Your task to perform on an android device: turn on translation in the chrome app Image 0: 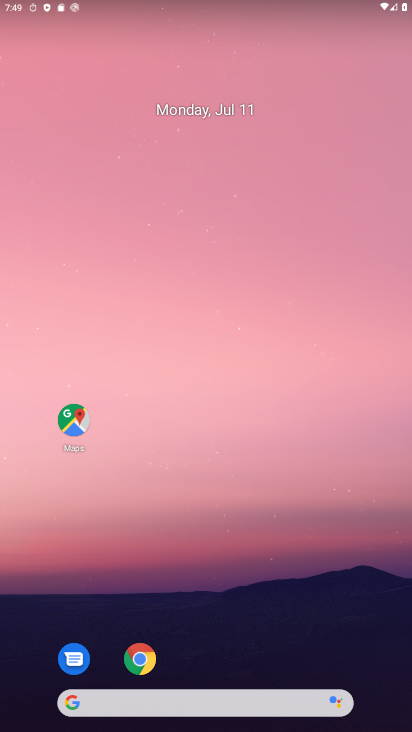
Step 0: click (402, 584)
Your task to perform on an android device: turn on translation in the chrome app Image 1: 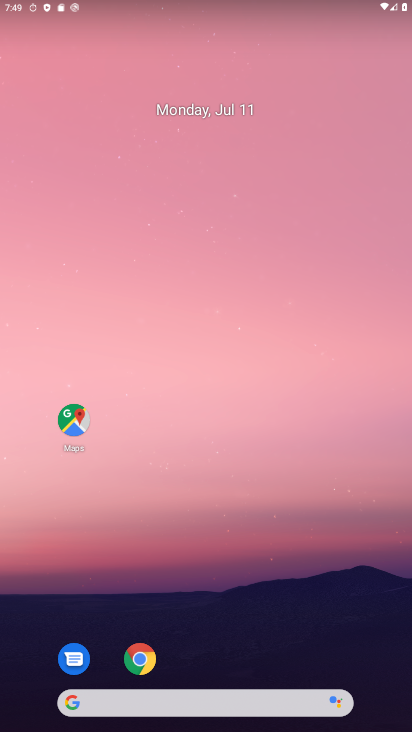
Step 1: drag from (362, 618) to (402, 80)
Your task to perform on an android device: turn on translation in the chrome app Image 2: 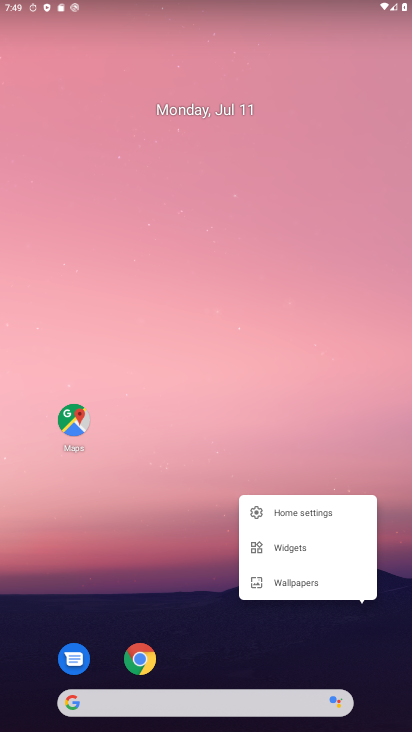
Step 2: click (230, 624)
Your task to perform on an android device: turn on translation in the chrome app Image 3: 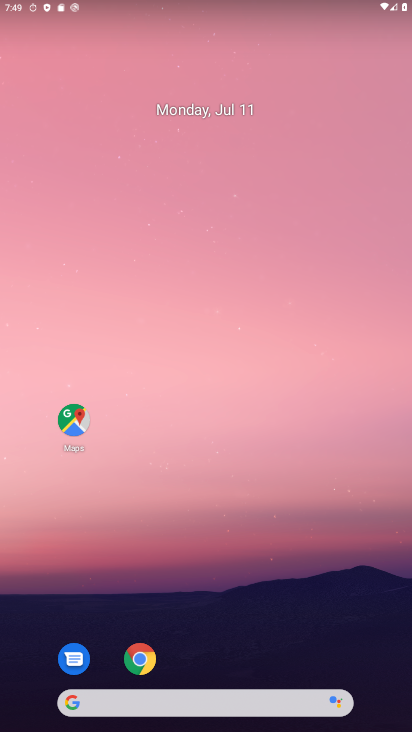
Step 3: drag from (251, 655) to (138, 15)
Your task to perform on an android device: turn on translation in the chrome app Image 4: 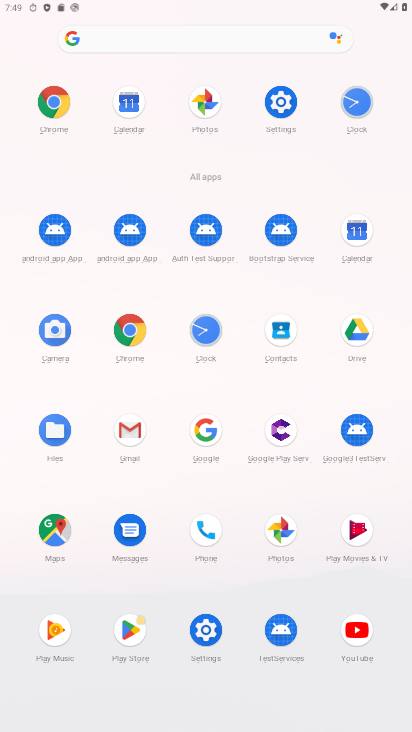
Step 4: drag from (298, 663) to (277, 40)
Your task to perform on an android device: turn on translation in the chrome app Image 5: 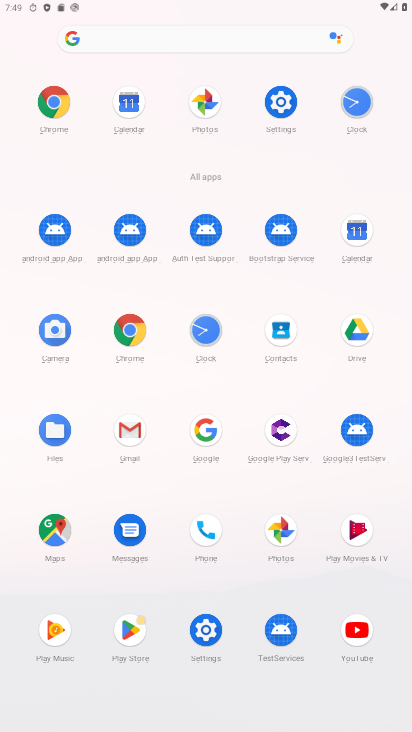
Step 5: click (57, 100)
Your task to perform on an android device: turn on translation in the chrome app Image 6: 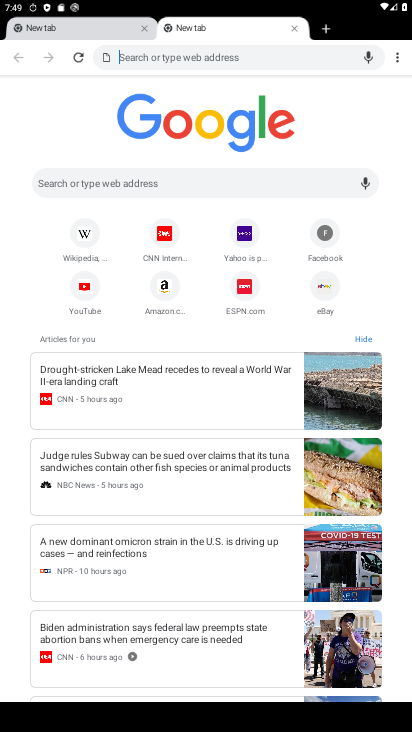
Step 6: drag from (404, 60) to (305, 268)
Your task to perform on an android device: turn on translation in the chrome app Image 7: 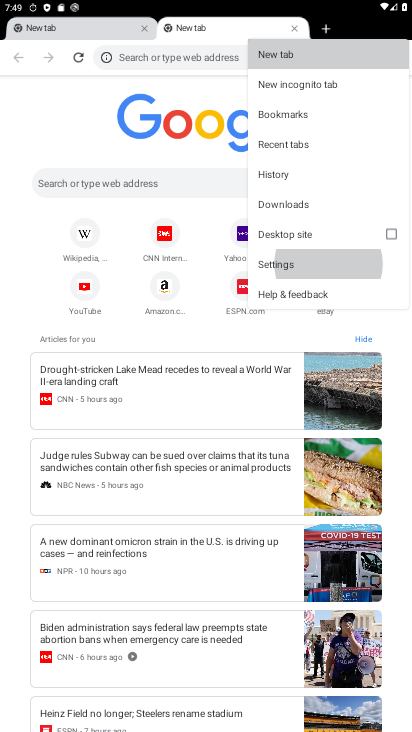
Step 7: click (285, 261)
Your task to perform on an android device: turn on translation in the chrome app Image 8: 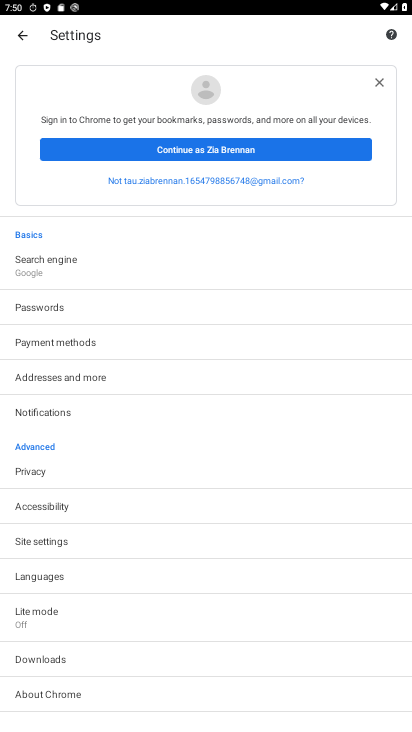
Step 8: click (55, 568)
Your task to perform on an android device: turn on translation in the chrome app Image 9: 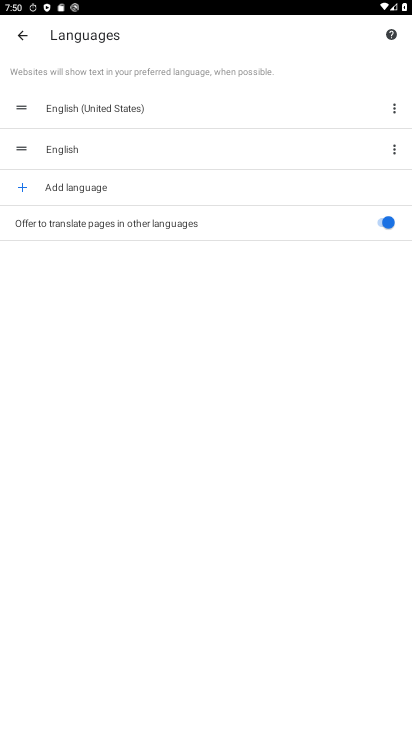
Step 9: task complete